Your task to perform on an android device: Clear the cart on ebay.com. Search for razer nari on ebay.com, select the first entry, add it to the cart, then select checkout. Image 0: 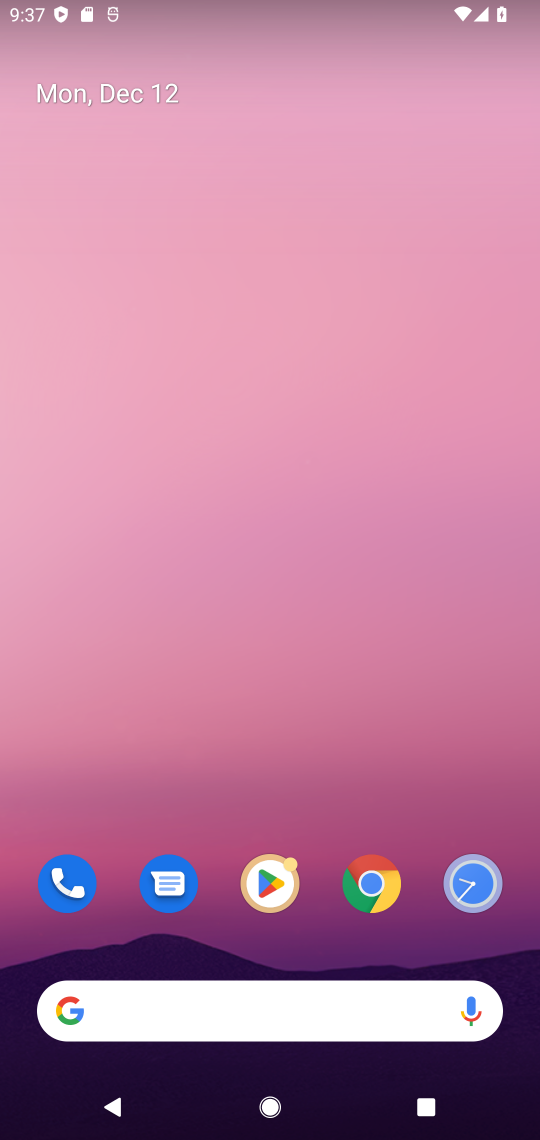
Step 0: drag from (283, 700) to (259, 58)
Your task to perform on an android device: Clear the cart on ebay.com. Search for razer nari on ebay.com, select the first entry, add it to the cart, then select checkout. Image 1: 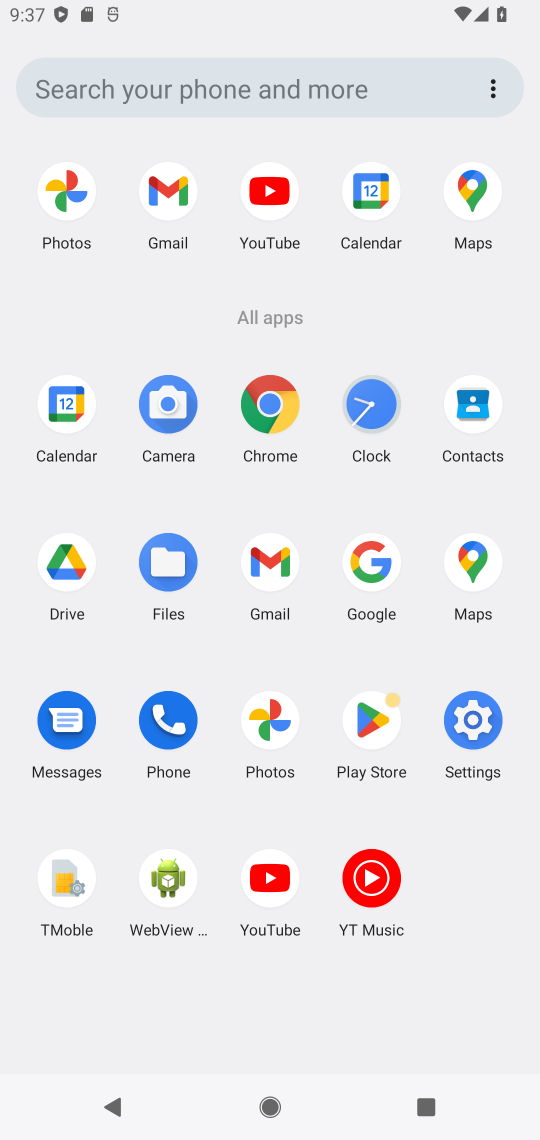
Step 1: click (359, 556)
Your task to perform on an android device: Clear the cart on ebay.com. Search for razer nari on ebay.com, select the first entry, add it to the cart, then select checkout. Image 2: 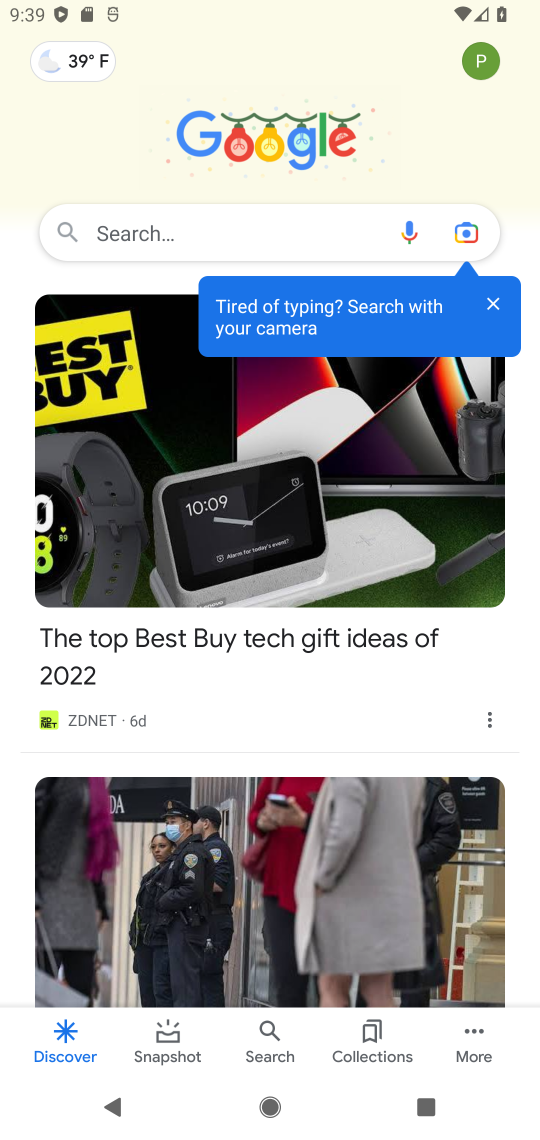
Step 2: press home button
Your task to perform on an android device: Clear the cart on ebay.com. Search for razer nari on ebay.com, select the first entry, add it to the cart, then select checkout. Image 3: 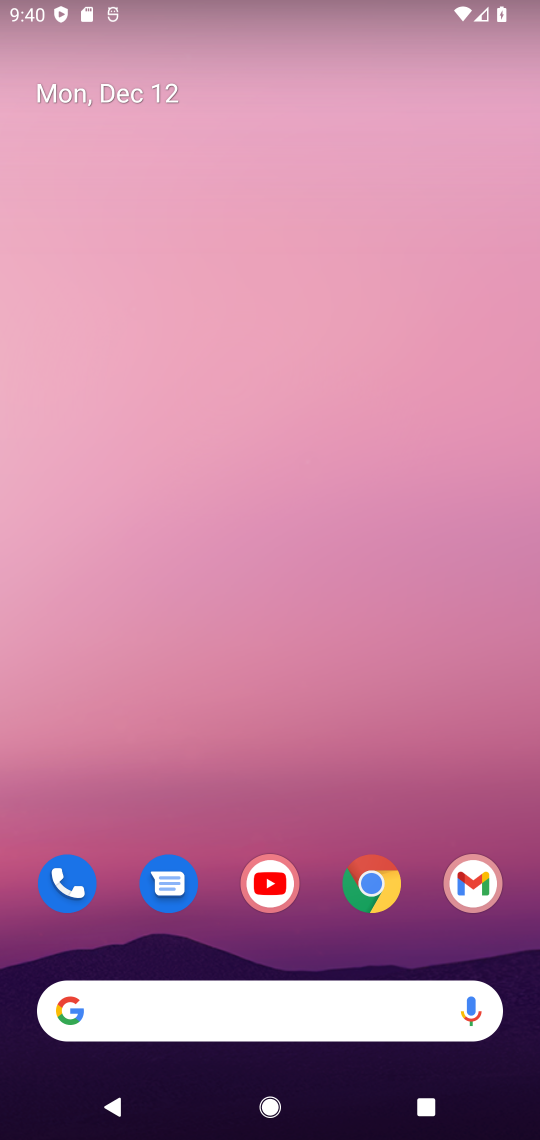
Step 3: click (274, 997)
Your task to perform on an android device: Clear the cart on ebay.com. Search for razer nari on ebay.com, select the first entry, add it to the cart, then select checkout. Image 4: 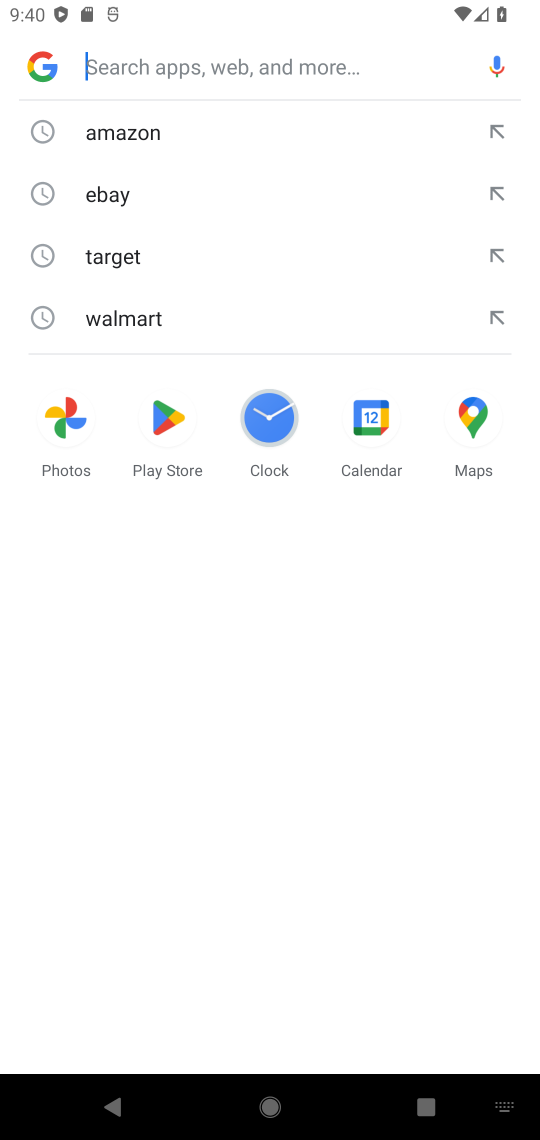
Step 4: click (106, 202)
Your task to perform on an android device: Clear the cart on ebay.com. Search for razer nari on ebay.com, select the first entry, add it to the cart, then select checkout. Image 5: 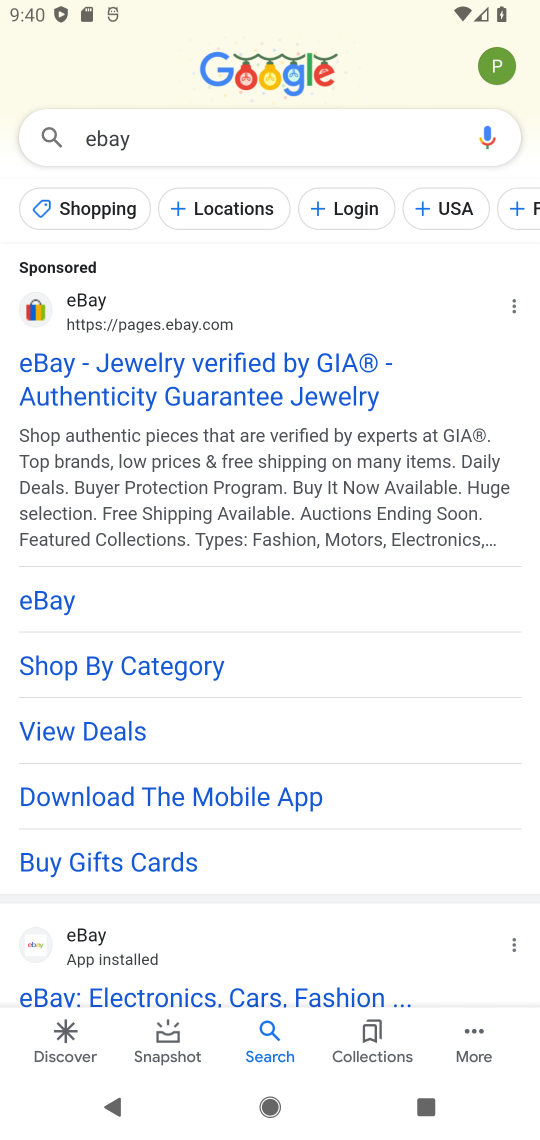
Step 5: click (58, 367)
Your task to perform on an android device: Clear the cart on ebay.com. Search for razer nari on ebay.com, select the first entry, add it to the cart, then select checkout. Image 6: 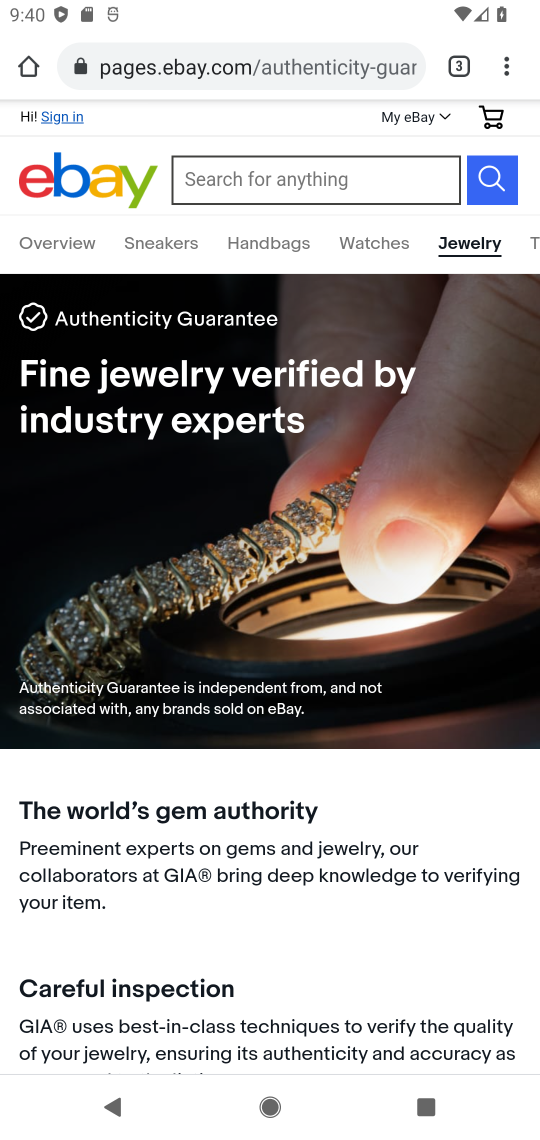
Step 6: click (499, 125)
Your task to perform on an android device: Clear the cart on ebay.com. Search for razer nari on ebay.com, select the first entry, add it to the cart, then select checkout. Image 7: 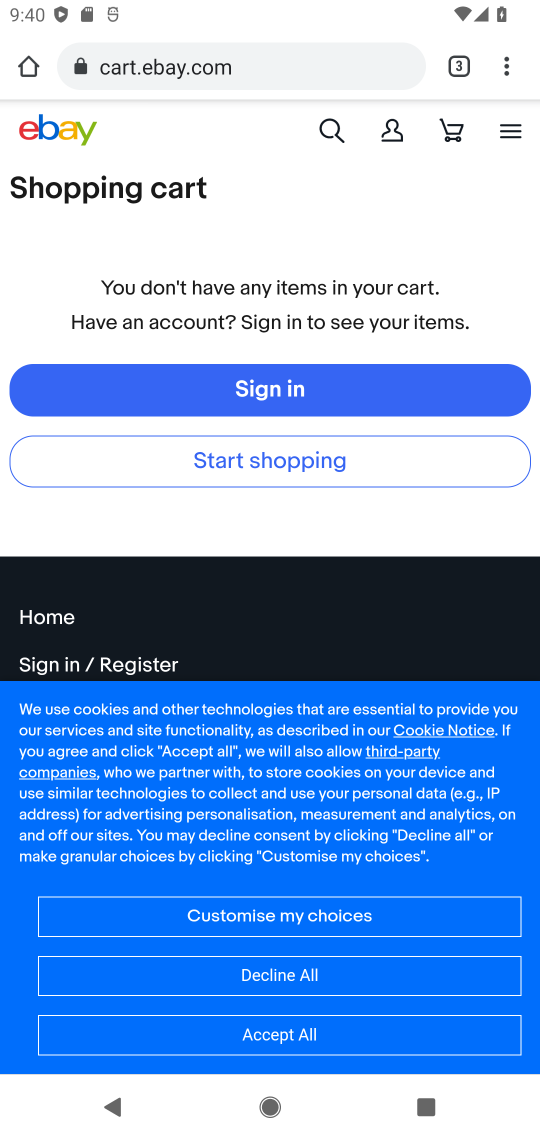
Step 7: click (332, 141)
Your task to perform on an android device: Clear the cart on ebay.com. Search for razer nari on ebay.com, select the first entry, add it to the cart, then select checkout. Image 8: 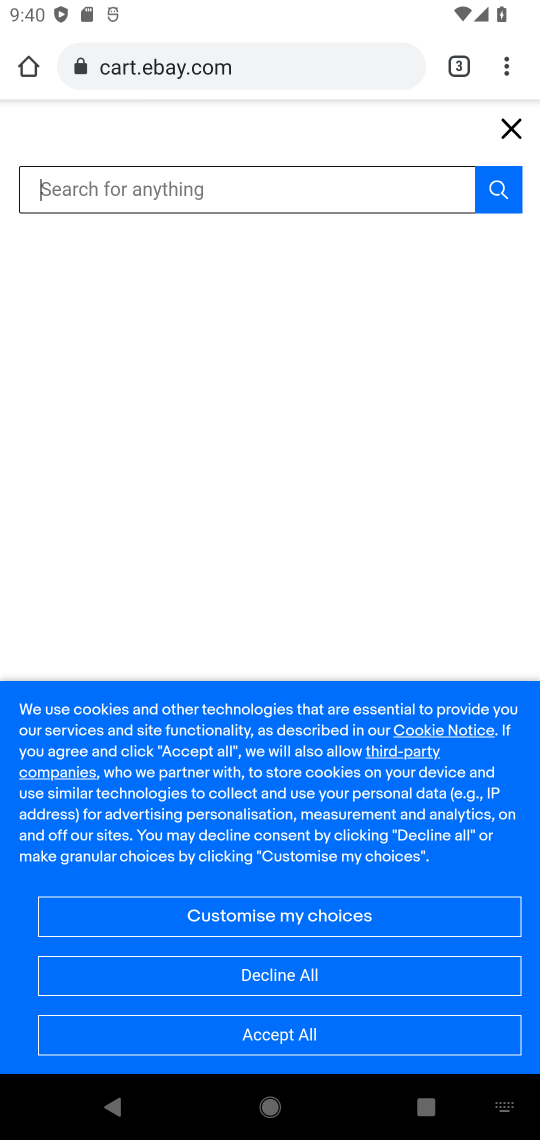
Step 8: click (343, 191)
Your task to perform on an android device: Clear the cart on ebay.com. Search for razer nari on ebay.com, select the first entry, add it to the cart, then select checkout. Image 9: 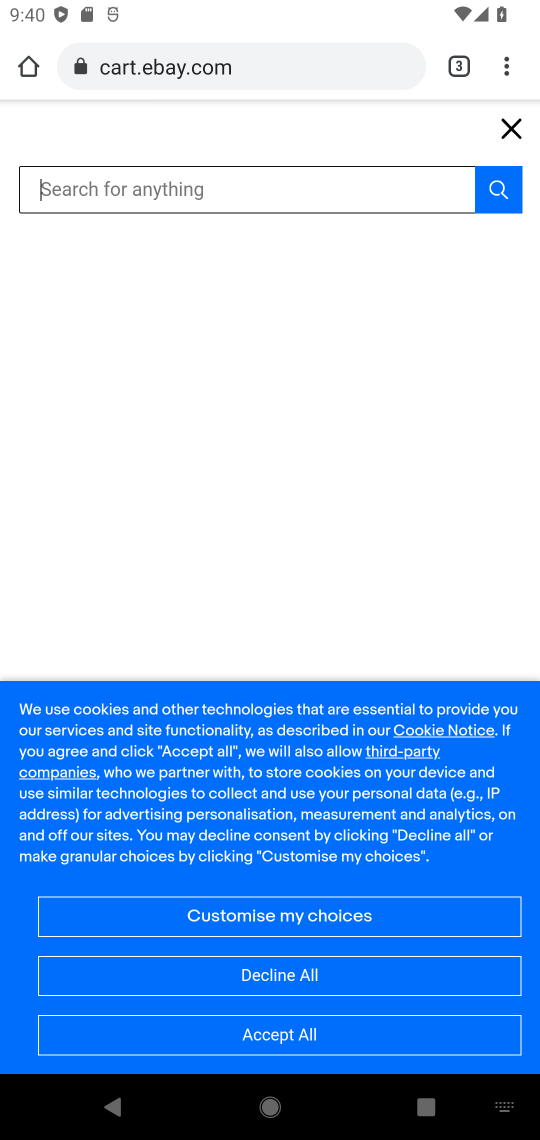
Step 9: type " razer nari o"
Your task to perform on an android device: Clear the cart on ebay.com. Search for razer nari on ebay.com, select the first entry, add it to the cart, then select checkout. Image 10: 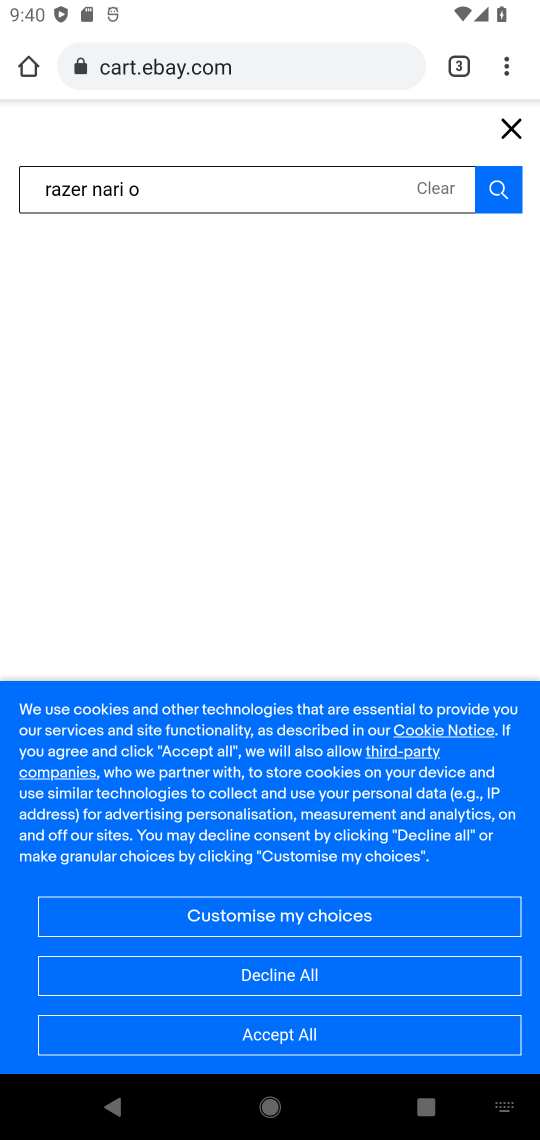
Step 10: click (341, 193)
Your task to perform on an android device: Clear the cart on ebay.com. Search for razer nari on ebay.com, select the first entry, add it to the cart, then select checkout. Image 11: 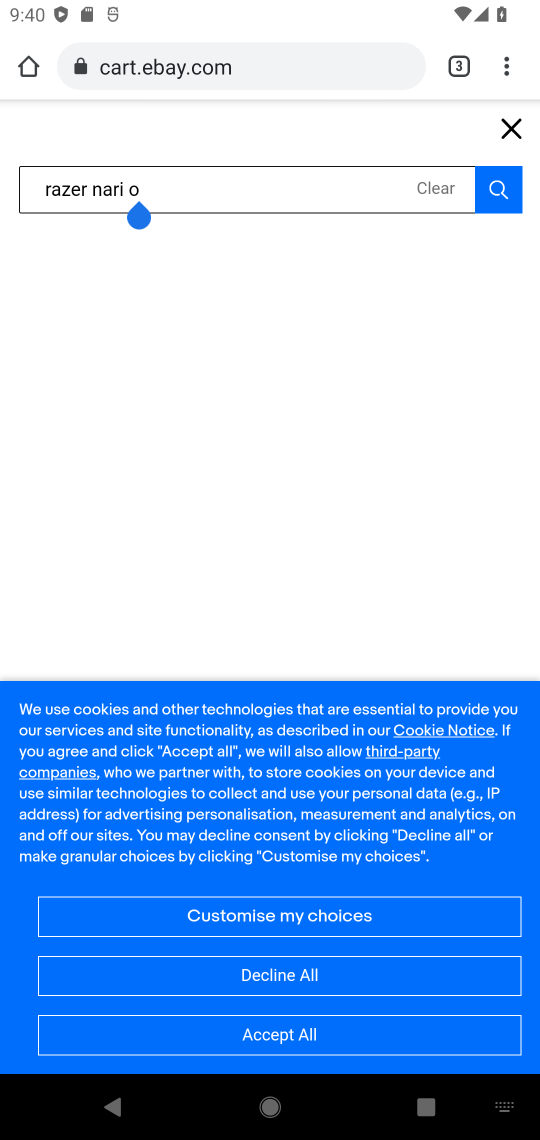
Step 11: click (443, 198)
Your task to perform on an android device: Clear the cart on ebay.com. Search for razer nari on ebay.com, select the first entry, add it to the cart, then select checkout. Image 12: 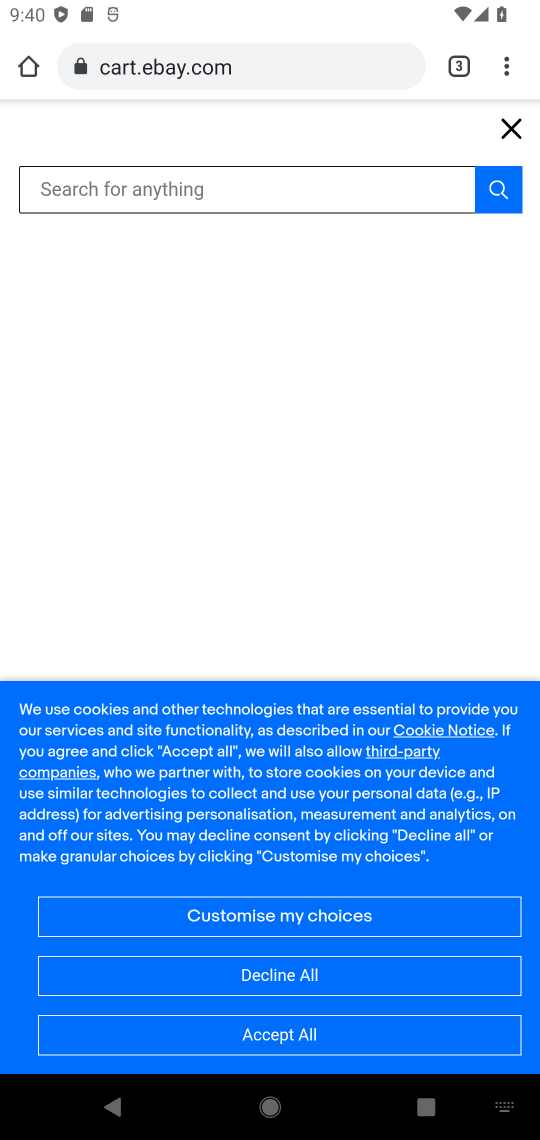
Step 12: type " razer nari "
Your task to perform on an android device: Clear the cart on ebay.com. Search for razer nari on ebay.com, select the first entry, add it to the cart, then select checkout. Image 13: 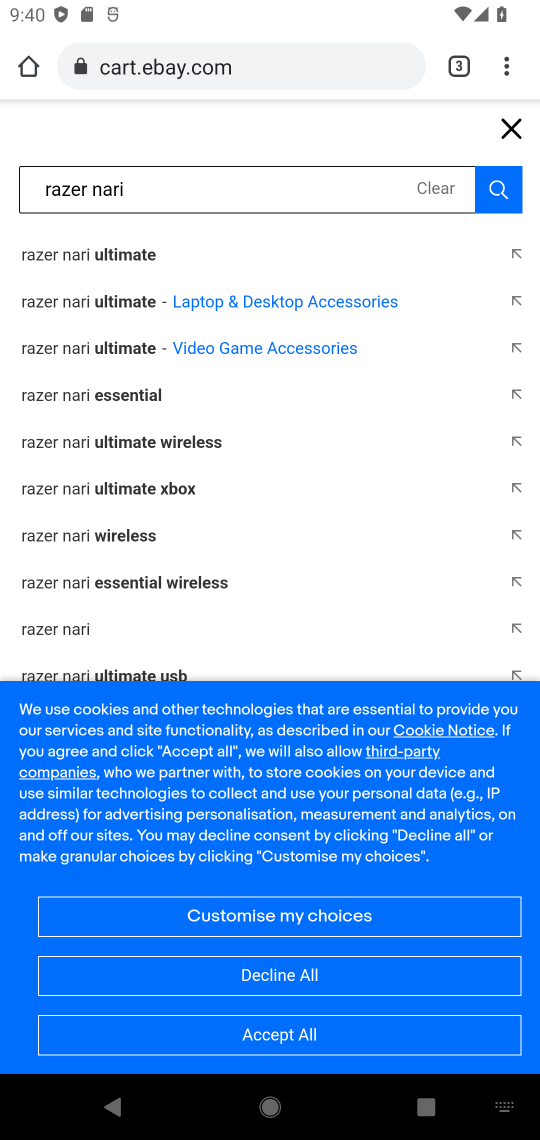
Step 13: click (41, 635)
Your task to perform on an android device: Clear the cart on ebay.com. Search for razer nari on ebay.com, select the first entry, add it to the cart, then select checkout. Image 14: 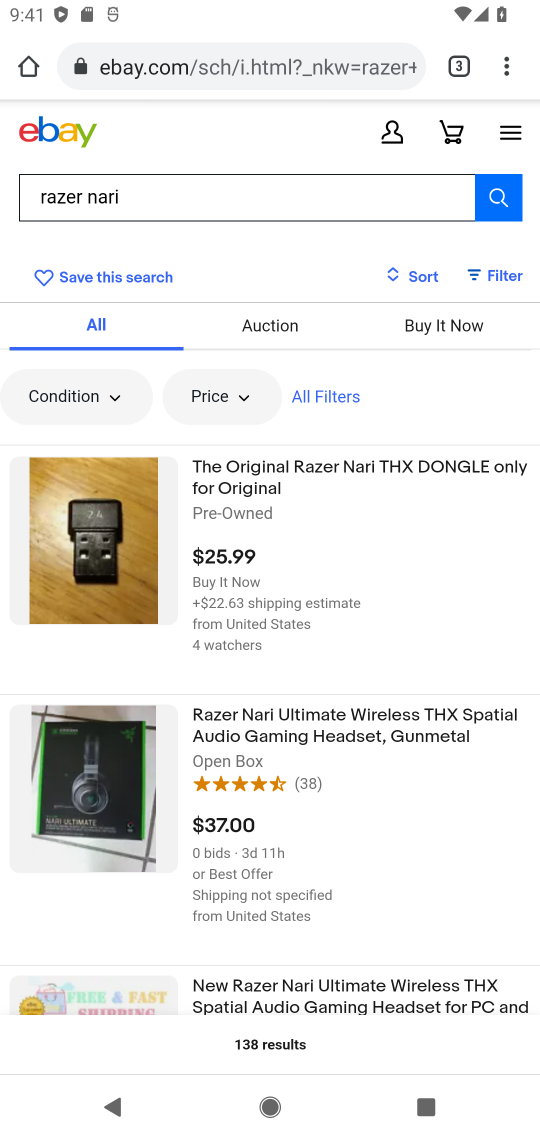
Step 14: click (230, 514)
Your task to perform on an android device: Clear the cart on ebay.com. Search for razer nari on ebay.com, select the first entry, add it to the cart, then select checkout. Image 15: 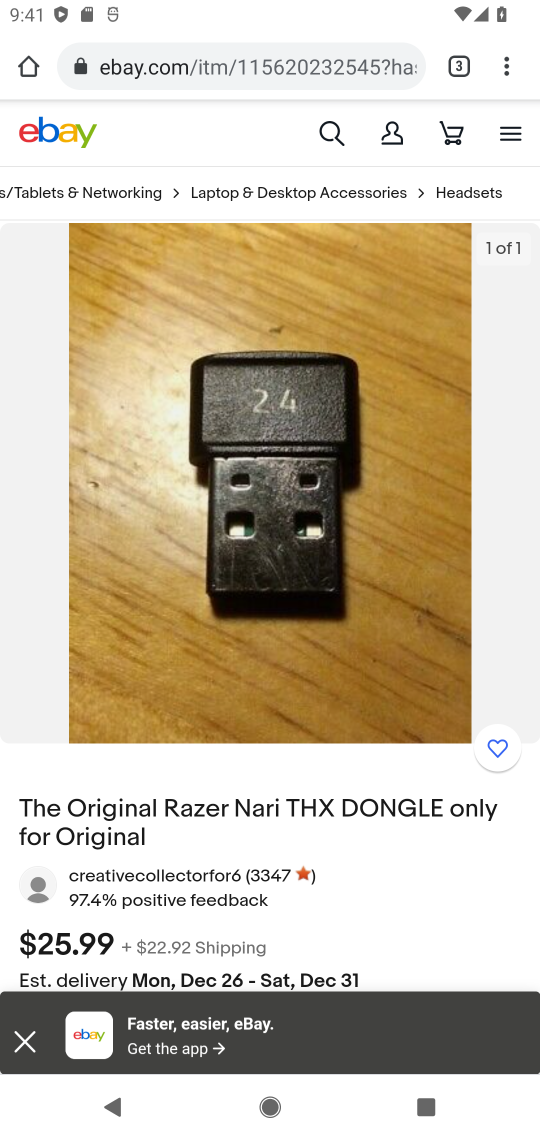
Step 15: drag from (414, 835) to (413, 373)
Your task to perform on an android device: Clear the cart on ebay.com. Search for razer nari on ebay.com, select the first entry, add it to the cart, then select checkout. Image 16: 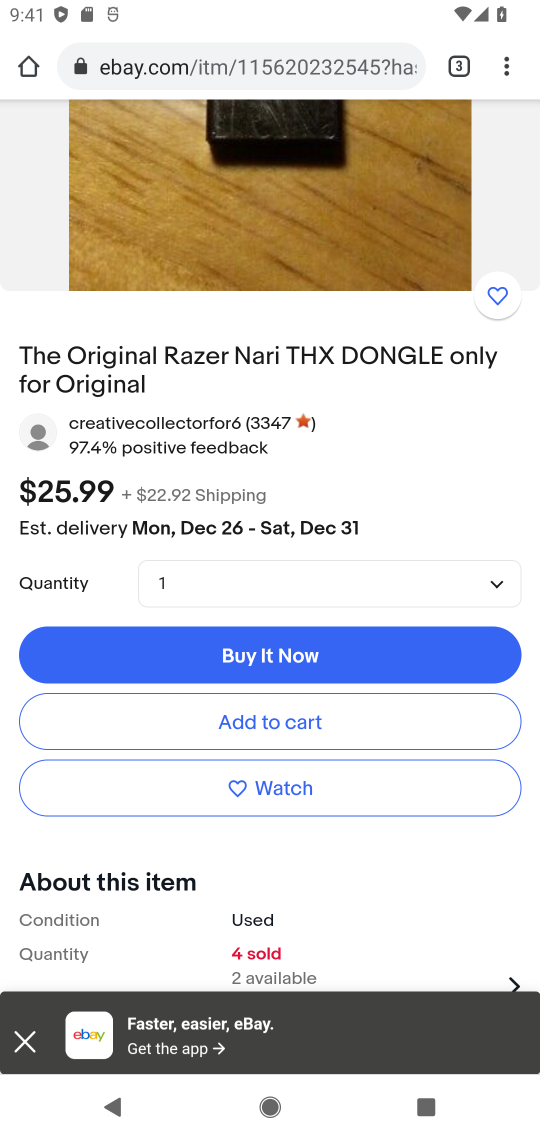
Step 16: click (260, 724)
Your task to perform on an android device: Clear the cart on ebay.com. Search for razer nari on ebay.com, select the first entry, add it to the cart, then select checkout. Image 17: 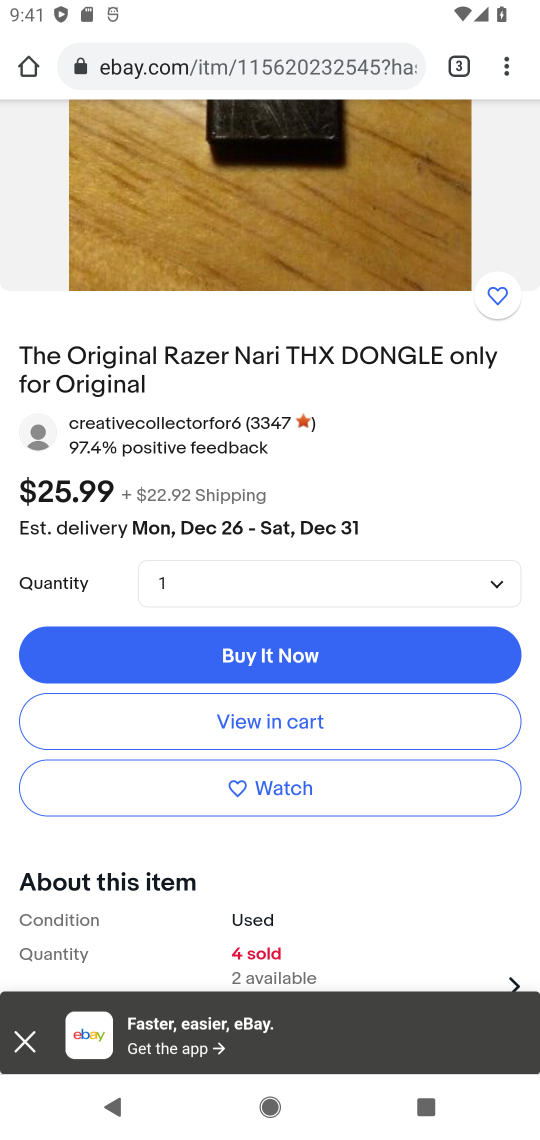
Step 17: click (260, 724)
Your task to perform on an android device: Clear the cart on ebay.com. Search for razer nari on ebay.com, select the first entry, add it to the cart, then select checkout. Image 18: 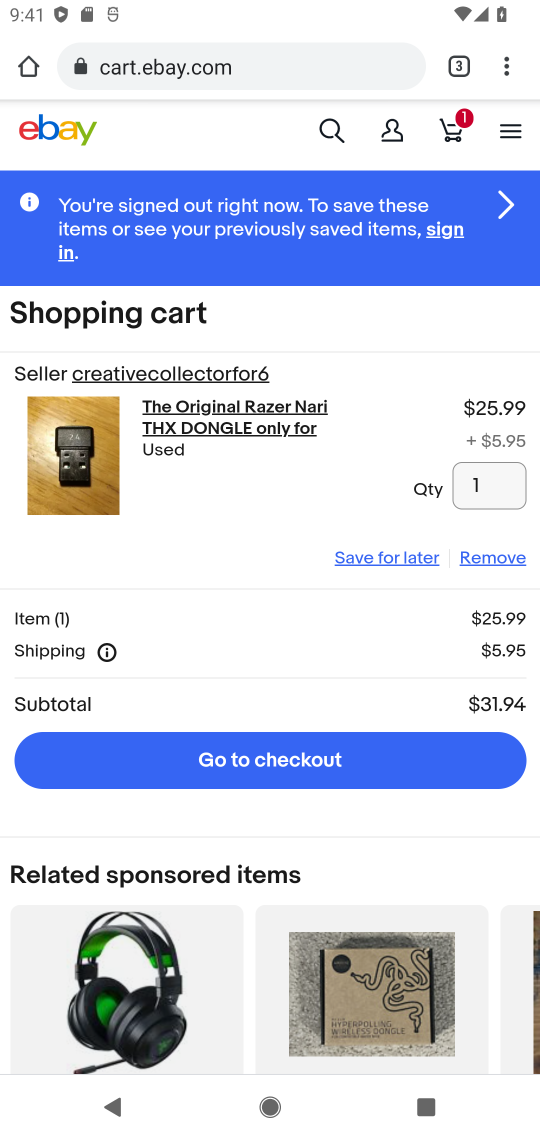
Step 18: click (267, 759)
Your task to perform on an android device: Clear the cart on ebay.com. Search for razer nari on ebay.com, select the first entry, add it to the cart, then select checkout. Image 19: 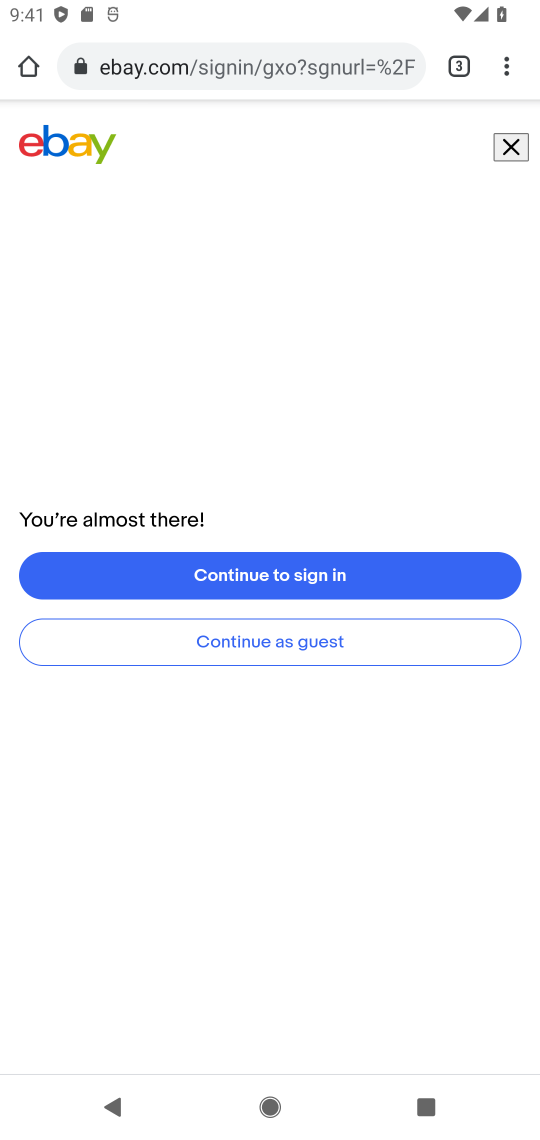
Step 19: task complete